Your task to perform on an android device: What's on my calendar today? Image 0: 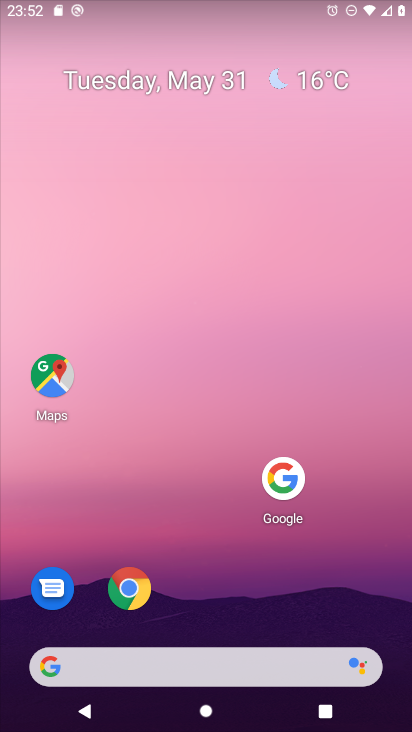
Step 0: press home button
Your task to perform on an android device: What's on my calendar today? Image 1: 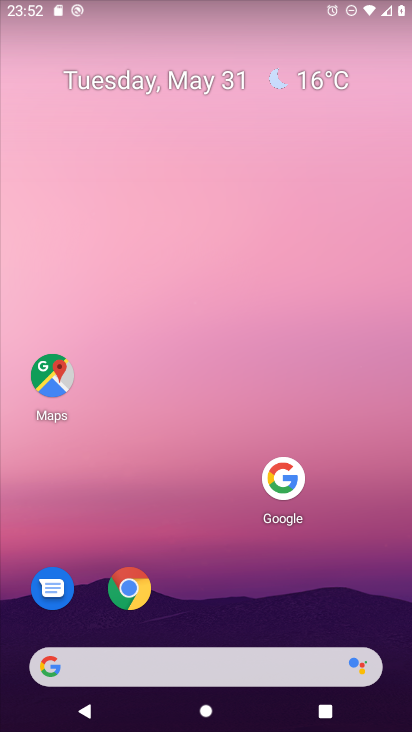
Step 1: drag from (148, 669) to (206, 162)
Your task to perform on an android device: What's on my calendar today? Image 2: 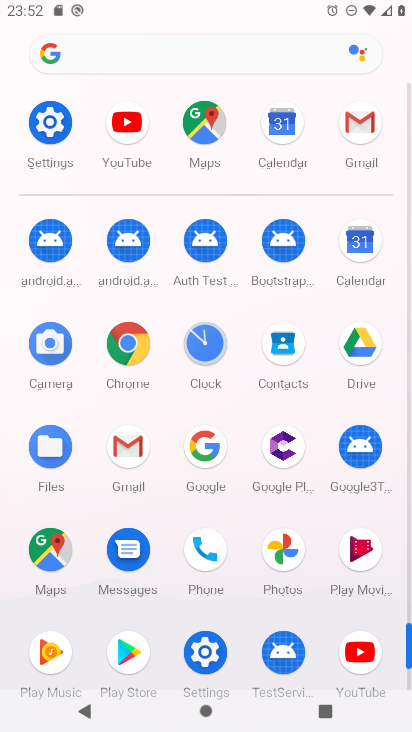
Step 2: click (277, 131)
Your task to perform on an android device: What's on my calendar today? Image 3: 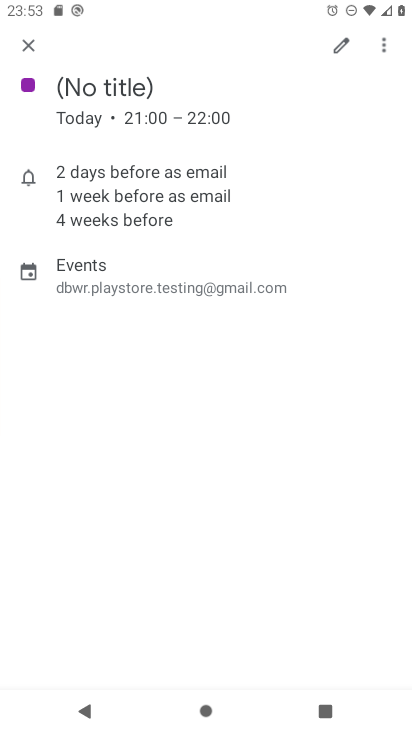
Step 3: task complete